Your task to perform on an android device: Empty the shopping cart on newegg.com. Image 0: 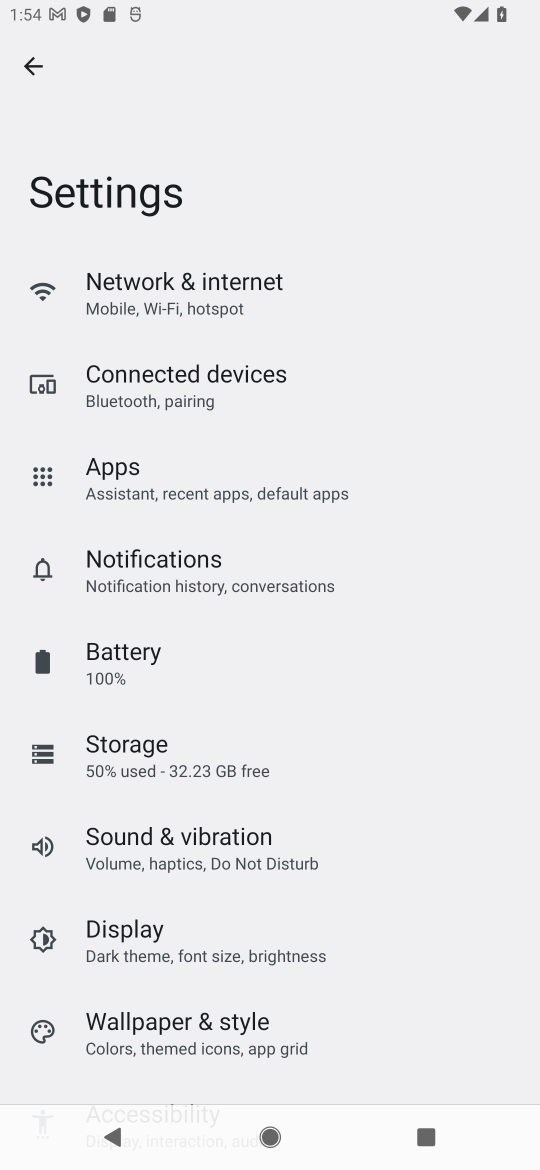
Step 0: press home button
Your task to perform on an android device: Empty the shopping cart on newegg.com. Image 1: 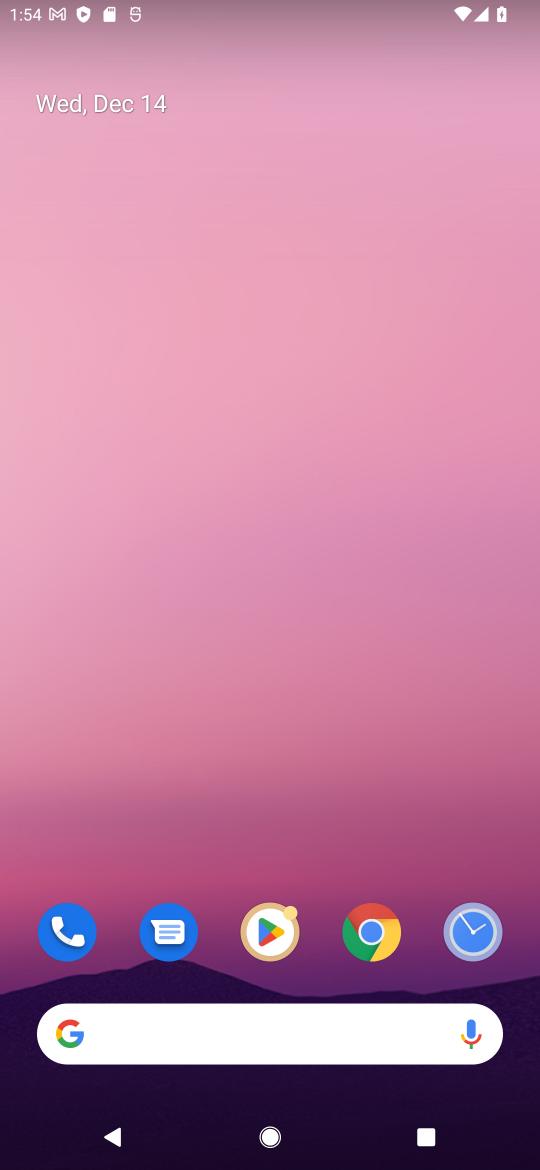
Step 1: click (249, 1021)
Your task to perform on an android device: Empty the shopping cart on newegg.com. Image 2: 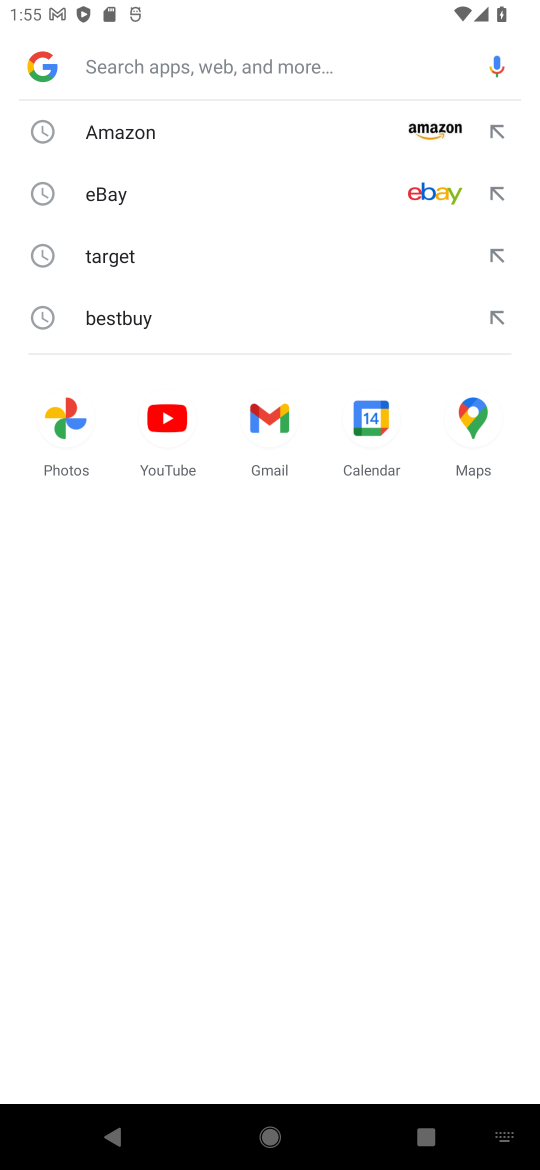
Step 2: type "newegg.com."
Your task to perform on an android device: Empty the shopping cart on newegg.com. Image 3: 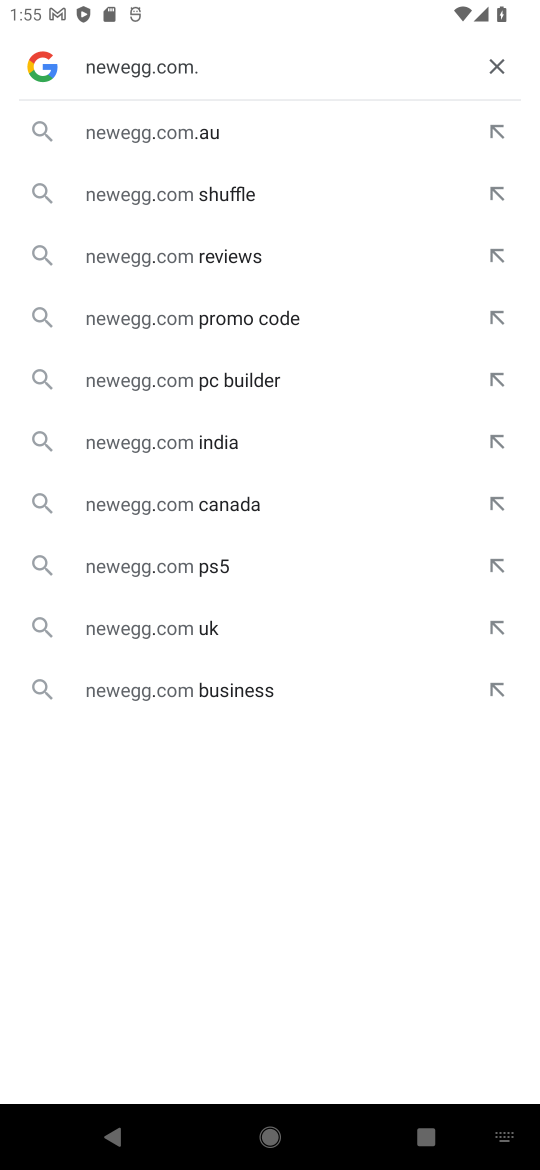
Step 3: click (493, 67)
Your task to perform on an android device: Empty the shopping cart on newegg.com. Image 4: 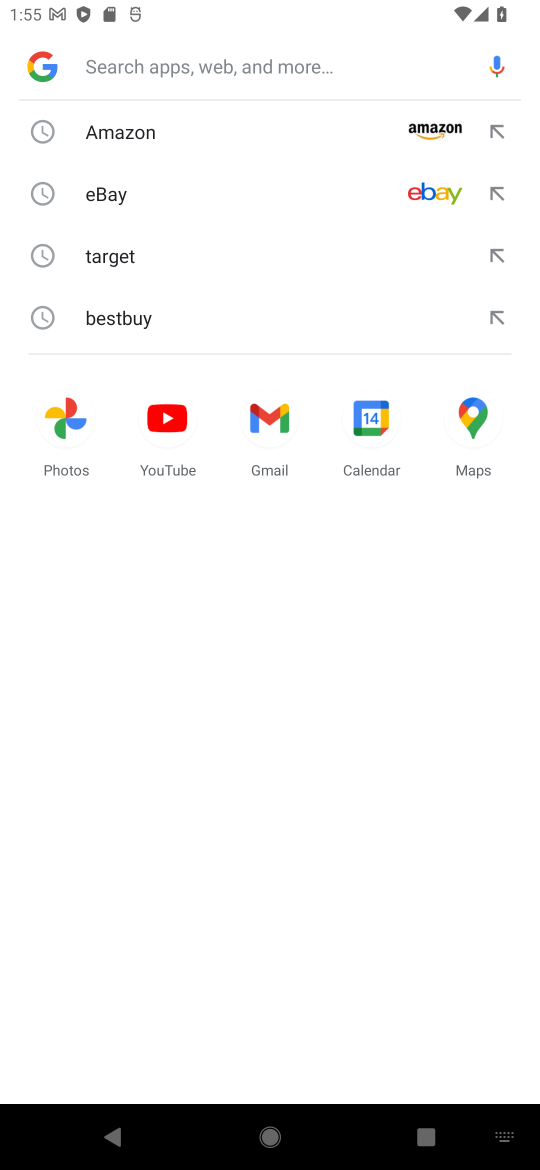
Step 4: type "newegg.com"
Your task to perform on an android device: Empty the shopping cart on newegg.com. Image 5: 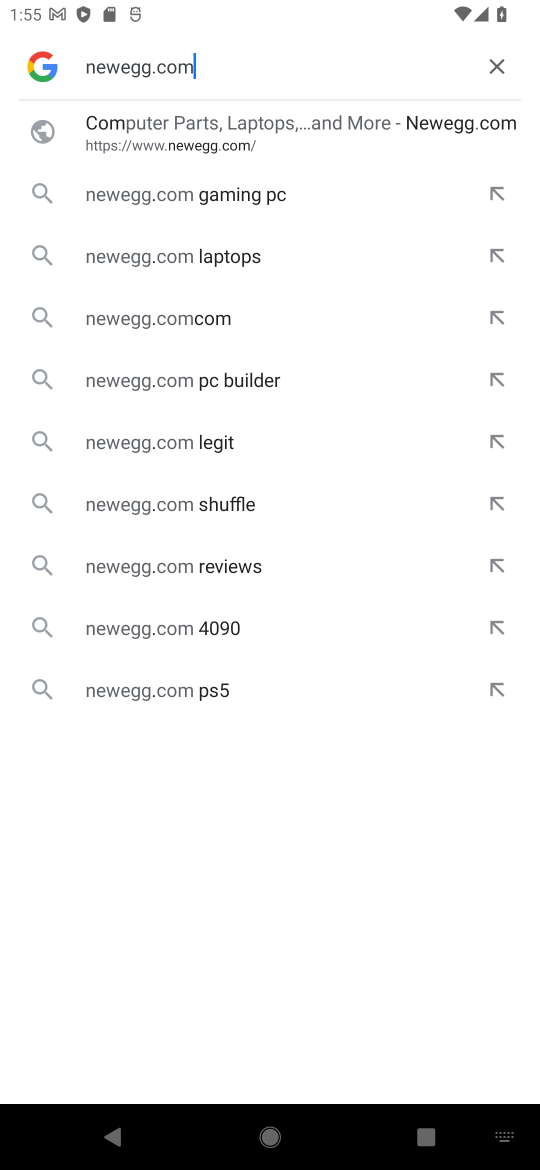
Step 5: click (239, 140)
Your task to perform on an android device: Empty the shopping cart on newegg.com. Image 6: 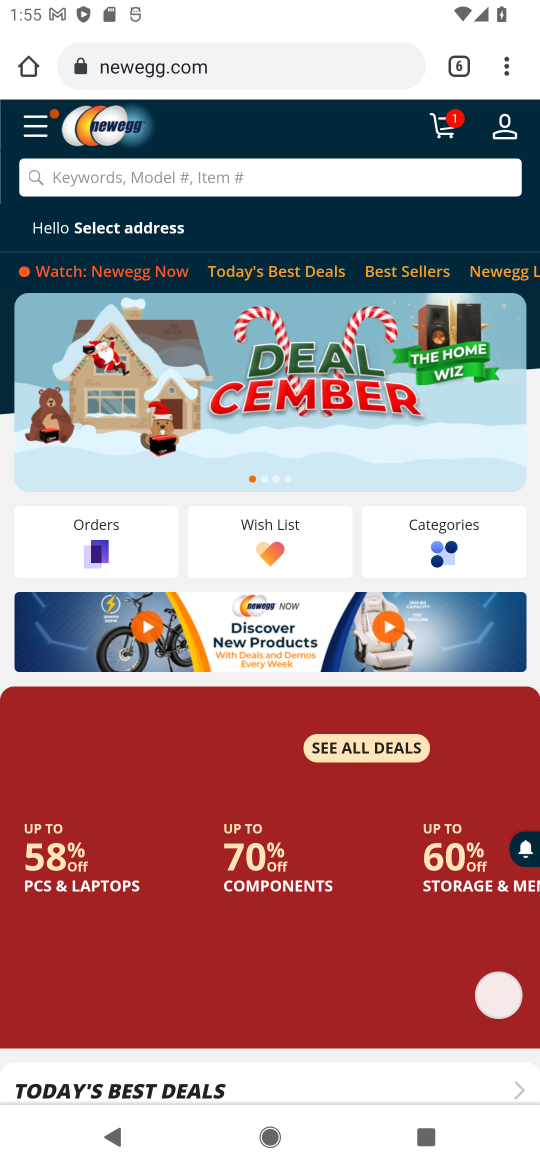
Step 6: click (447, 127)
Your task to perform on an android device: Empty the shopping cart on newegg.com. Image 7: 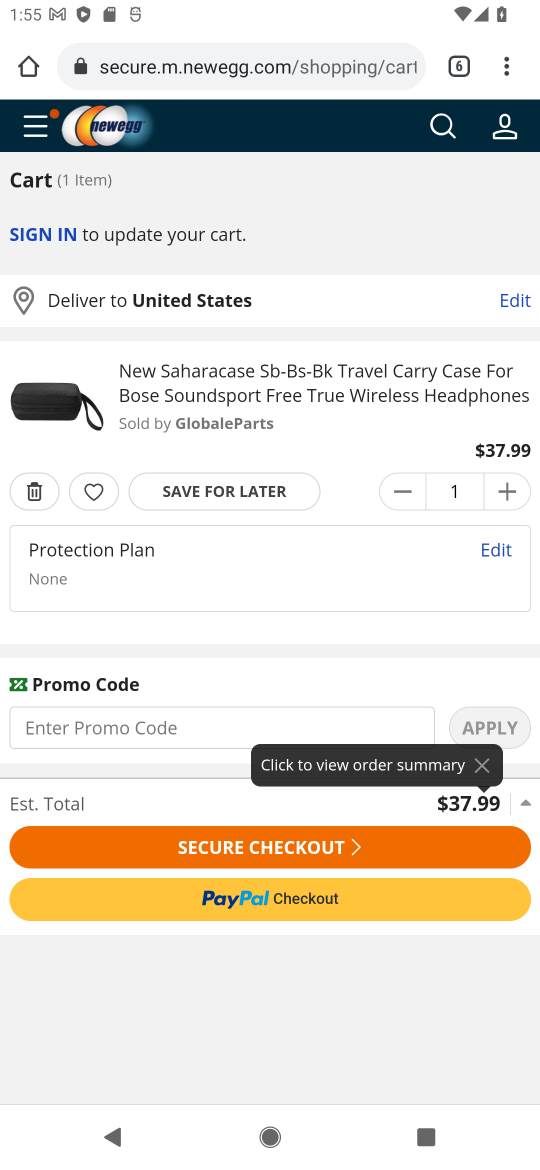
Step 7: click (29, 492)
Your task to perform on an android device: Empty the shopping cart on newegg.com. Image 8: 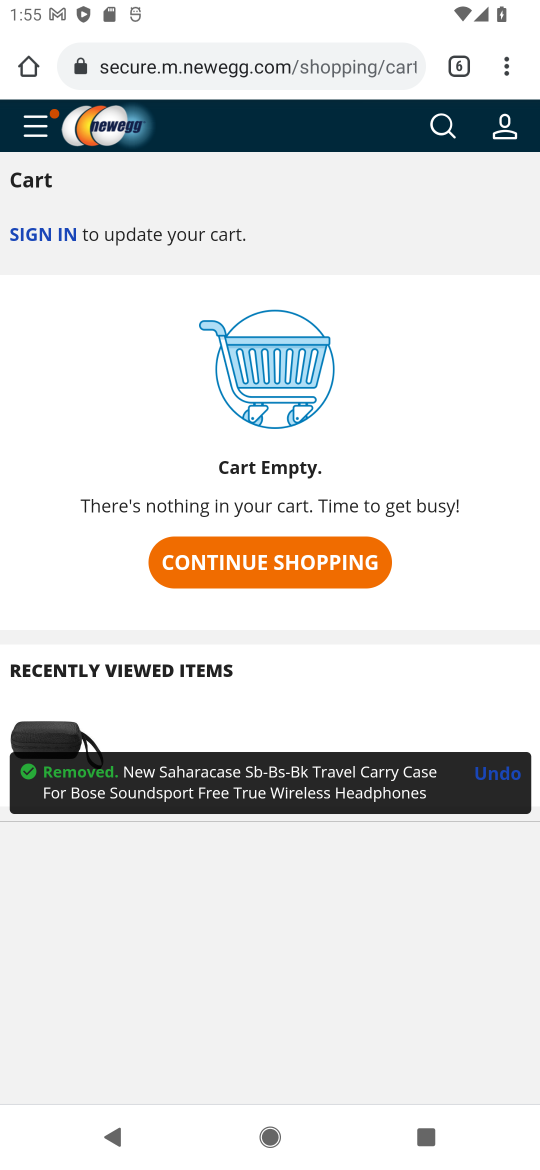
Step 8: task complete